Your task to perform on an android device: turn off picture-in-picture Image 0: 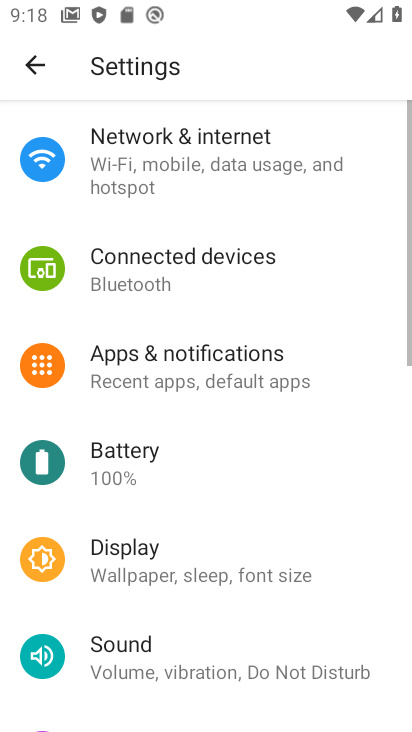
Step 0: press home button
Your task to perform on an android device: turn off picture-in-picture Image 1: 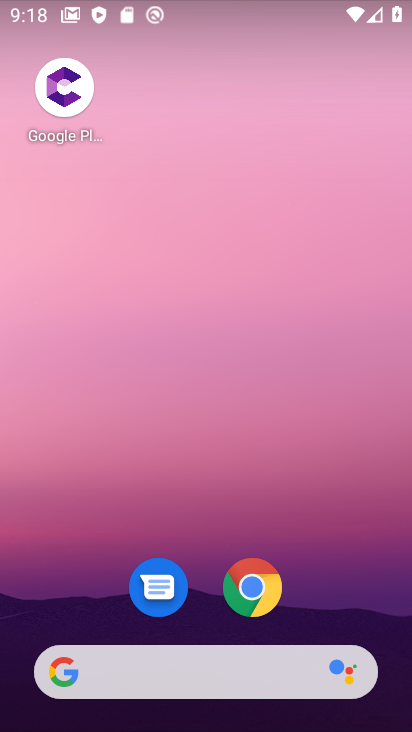
Step 1: drag from (312, 701) to (274, 239)
Your task to perform on an android device: turn off picture-in-picture Image 2: 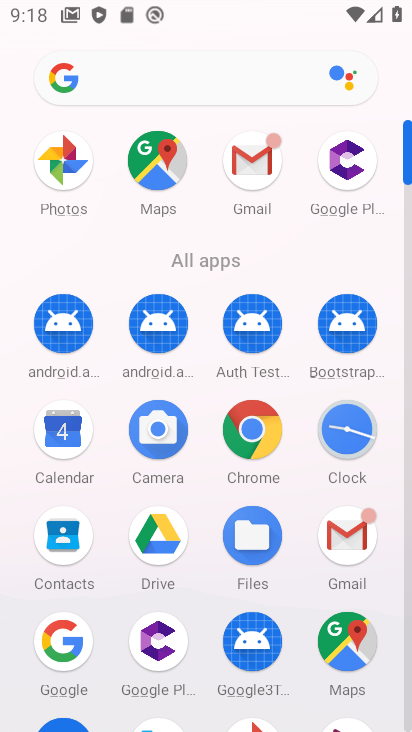
Step 2: drag from (301, 504) to (326, 286)
Your task to perform on an android device: turn off picture-in-picture Image 3: 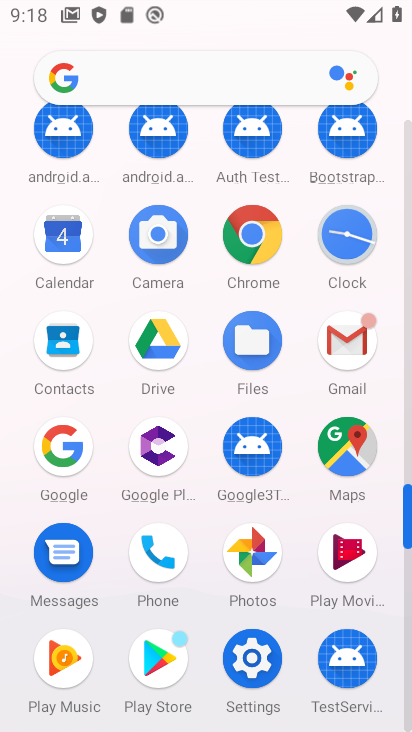
Step 3: click (259, 646)
Your task to perform on an android device: turn off picture-in-picture Image 4: 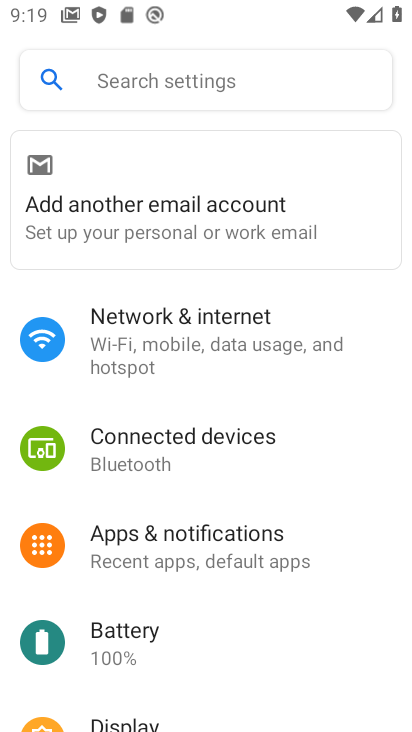
Step 4: click (98, 81)
Your task to perform on an android device: turn off picture-in-picture Image 5: 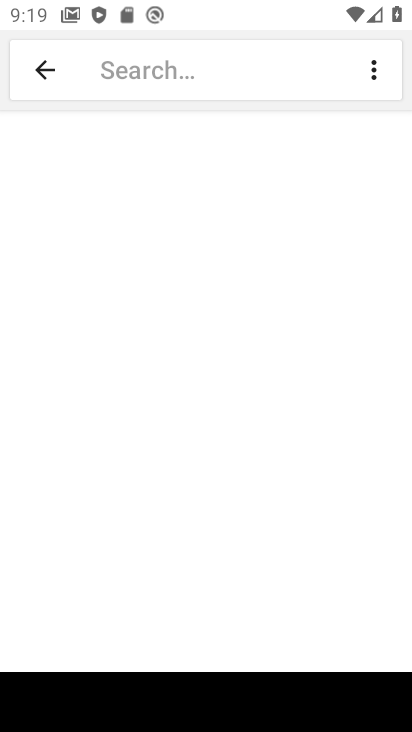
Step 5: drag from (398, 711) to (410, 623)
Your task to perform on an android device: turn off picture-in-picture Image 6: 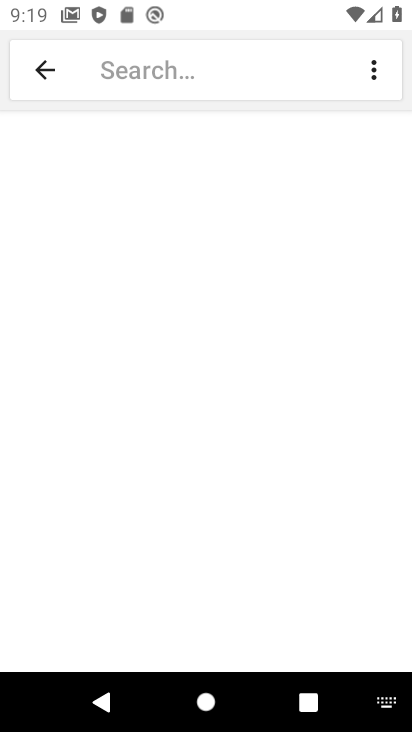
Step 6: click (398, 704)
Your task to perform on an android device: turn off picture-in-picture Image 7: 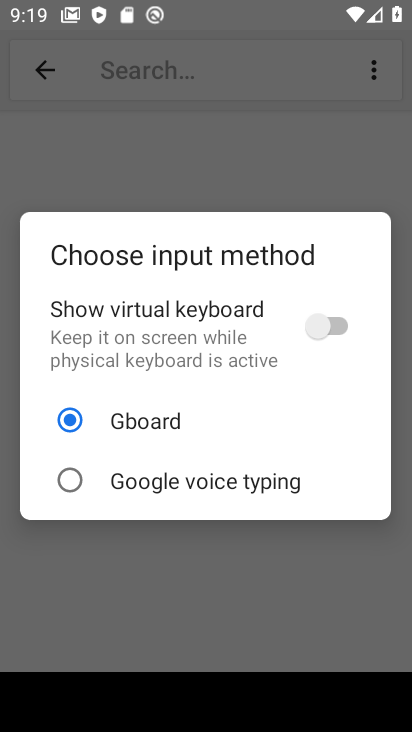
Step 7: click (336, 322)
Your task to perform on an android device: turn off picture-in-picture Image 8: 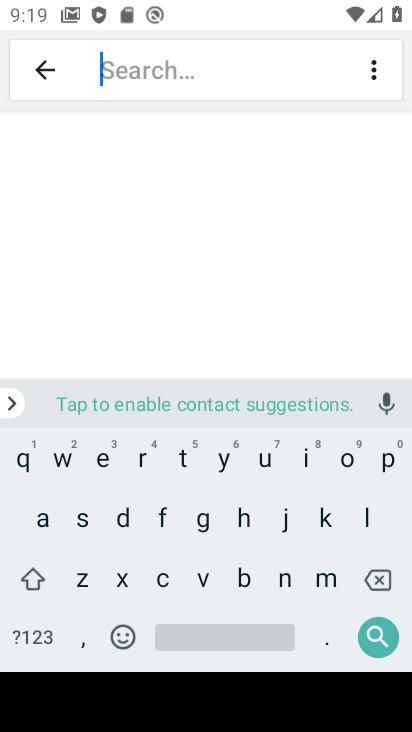
Step 8: click (379, 472)
Your task to perform on an android device: turn off picture-in-picture Image 9: 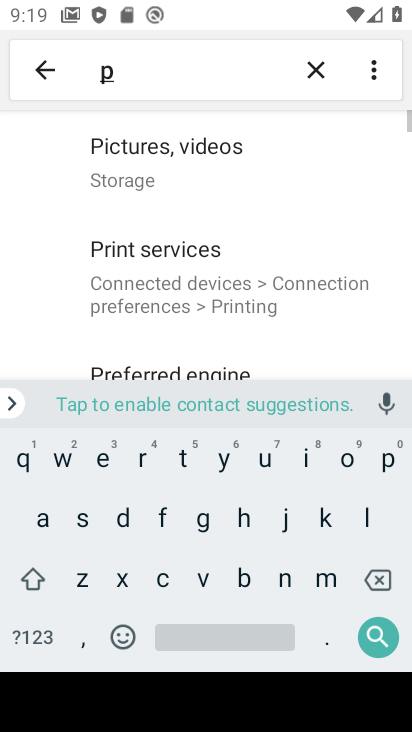
Step 9: click (308, 463)
Your task to perform on an android device: turn off picture-in-picture Image 10: 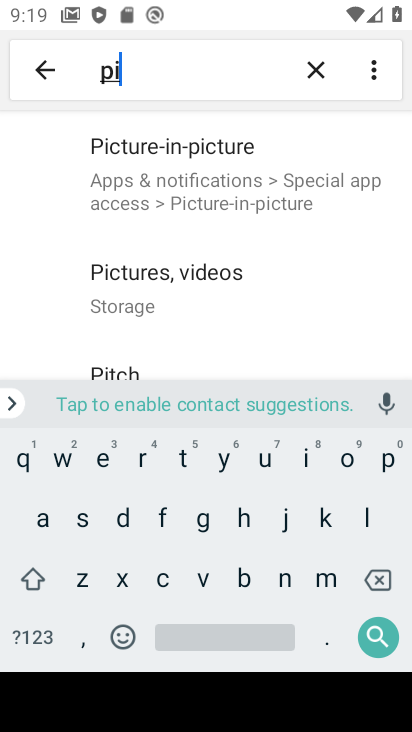
Step 10: click (163, 578)
Your task to perform on an android device: turn off picture-in-picture Image 11: 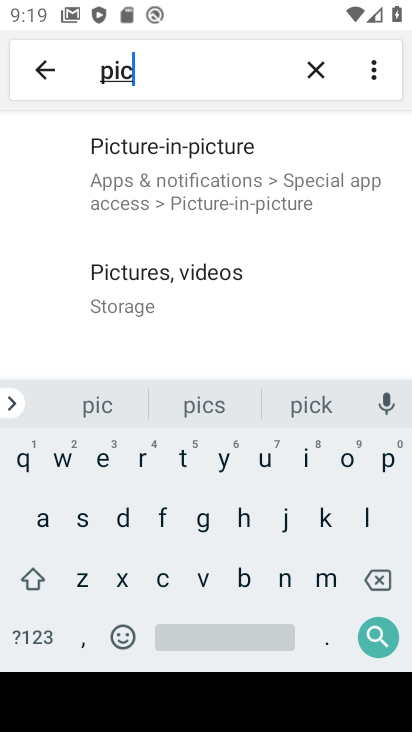
Step 11: click (222, 190)
Your task to perform on an android device: turn off picture-in-picture Image 12: 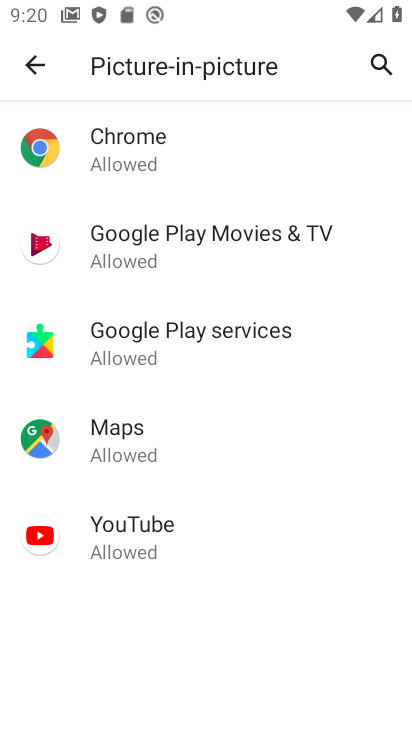
Step 12: task complete